Your task to perform on an android device: turn off translation in the chrome app Image 0: 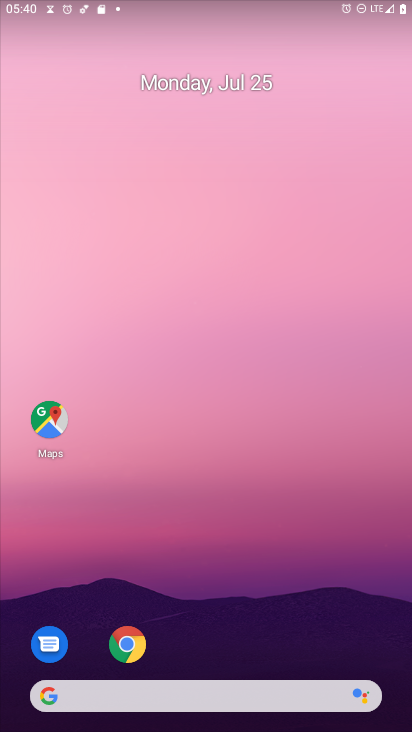
Step 0: press home button
Your task to perform on an android device: turn off translation in the chrome app Image 1: 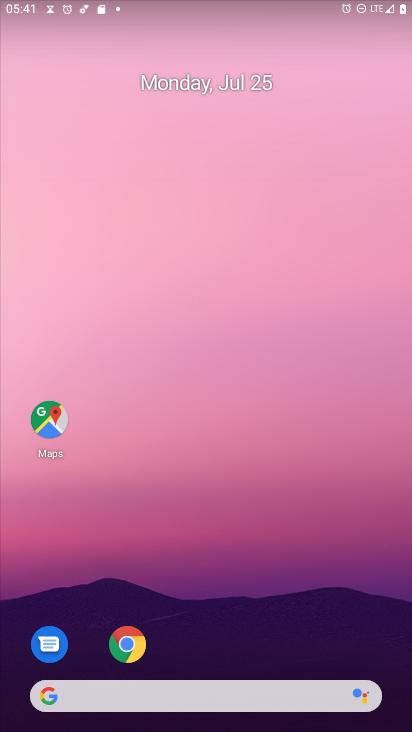
Step 1: drag from (226, 640) to (247, 116)
Your task to perform on an android device: turn off translation in the chrome app Image 2: 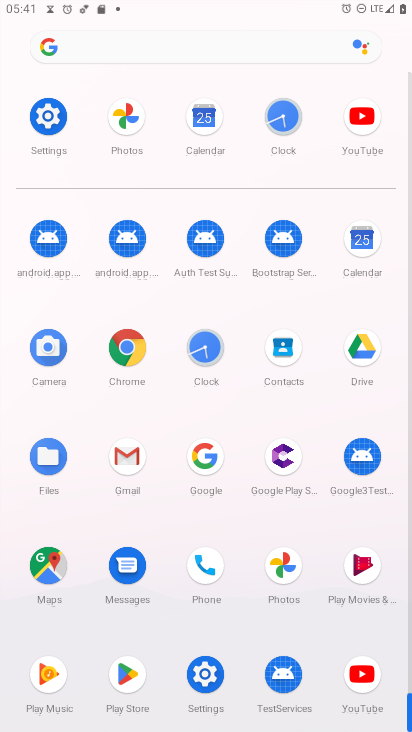
Step 2: click (140, 350)
Your task to perform on an android device: turn off translation in the chrome app Image 3: 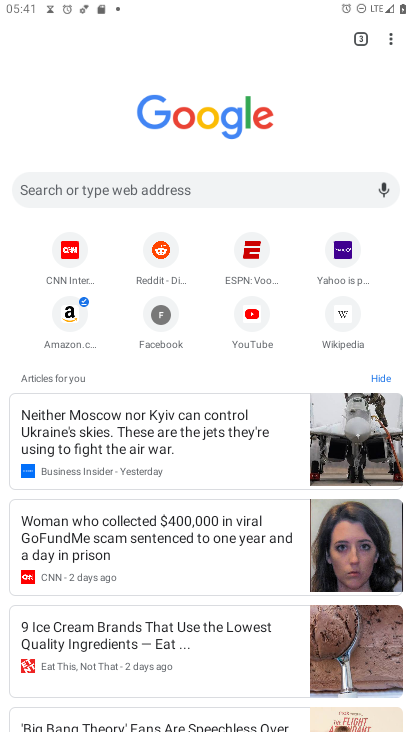
Step 3: drag from (388, 29) to (236, 322)
Your task to perform on an android device: turn off translation in the chrome app Image 4: 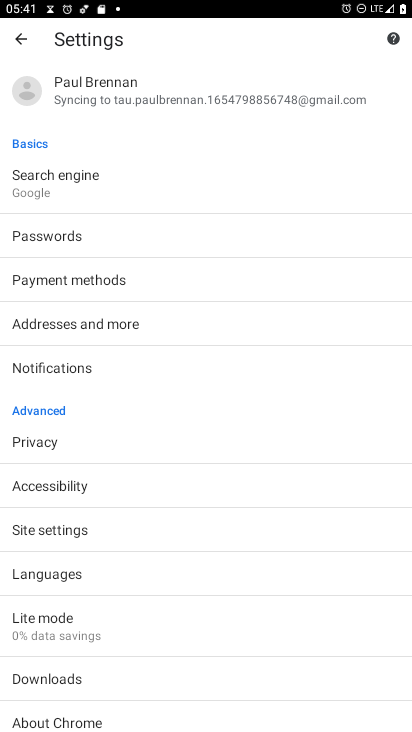
Step 4: click (49, 580)
Your task to perform on an android device: turn off translation in the chrome app Image 5: 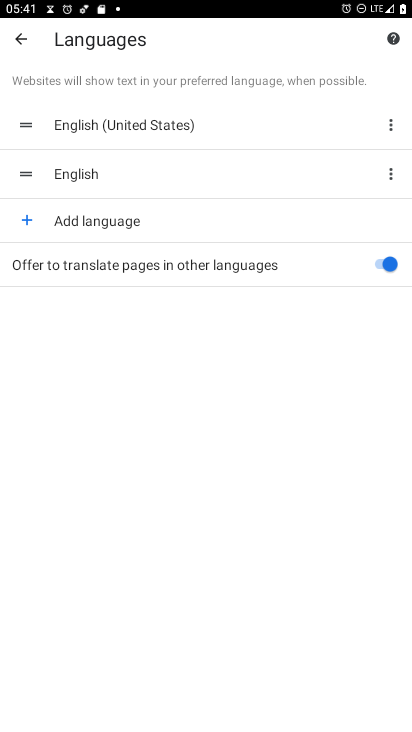
Step 5: click (391, 270)
Your task to perform on an android device: turn off translation in the chrome app Image 6: 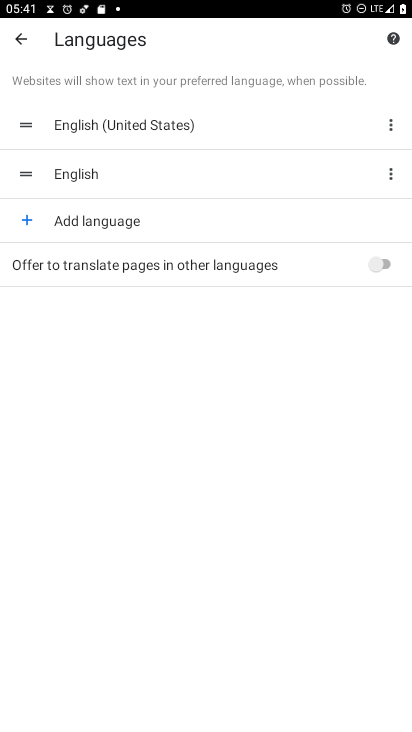
Step 6: task complete